Your task to perform on an android device: snooze an email in the gmail app Image 0: 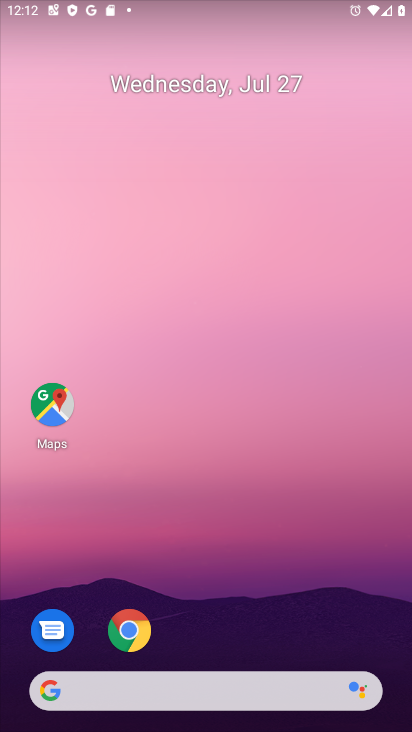
Step 0: drag from (231, 726) to (219, 289)
Your task to perform on an android device: snooze an email in the gmail app Image 1: 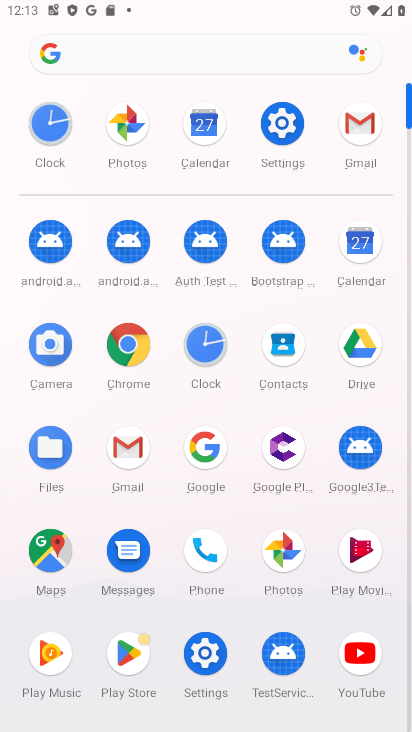
Step 1: click (124, 453)
Your task to perform on an android device: snooze an email in the gmail app Image 2: 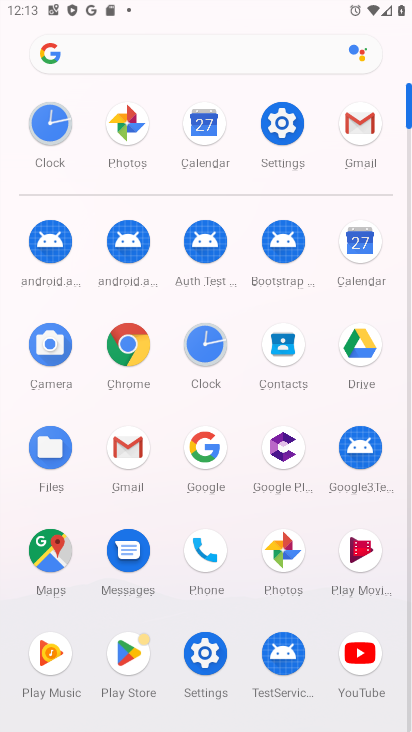
Step 2: click (124, 453)
Your task to perform on an android device: snooze an email in the gmail app Image 3: 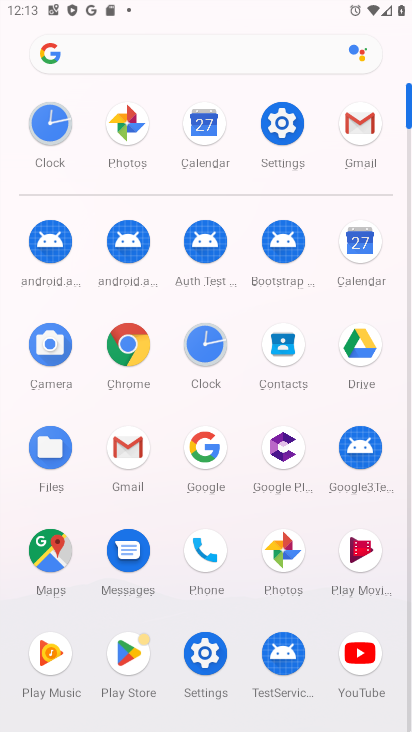
Step 3: click (124, 453)
Your task to perform on an android device: snooze an email in the gmail app Image 4: 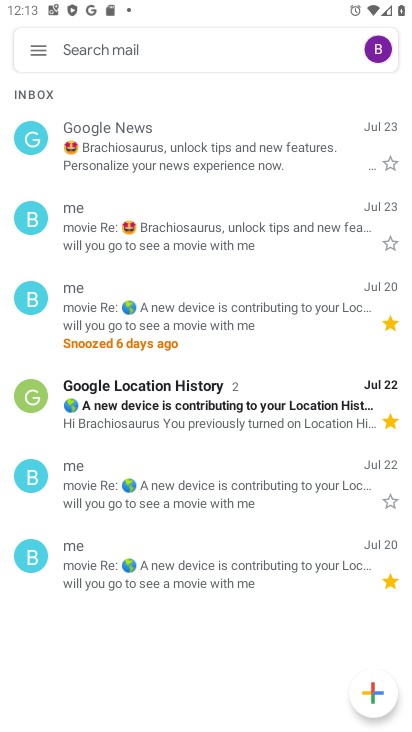
Step 4: click (157, 499)
Your task to perform on an android device: snooze an email in the gmail app Image 5: 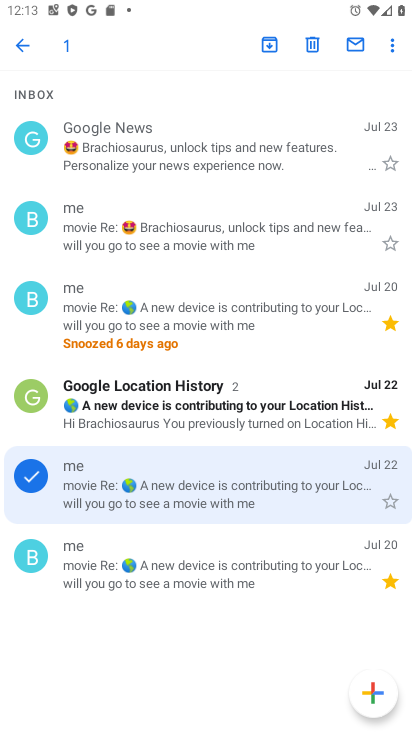
Step 5: click (389, 47)
Your task to perform on an android device: snooze an email in the gmail app Image 6: 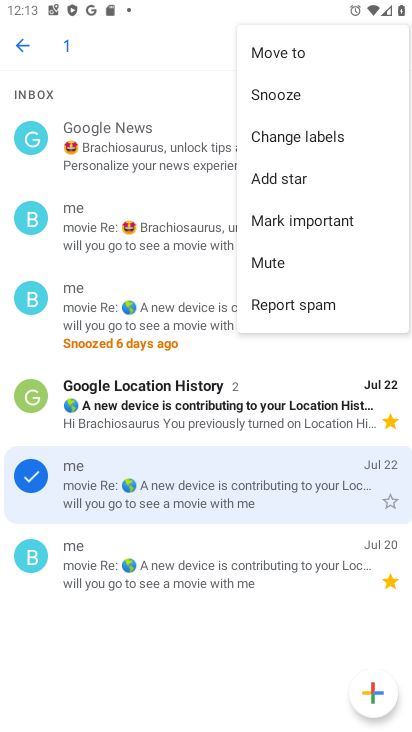
Step 6: click (332, 92)
Your task to perform on an android device: snooze an email in the gmail app Image 7: 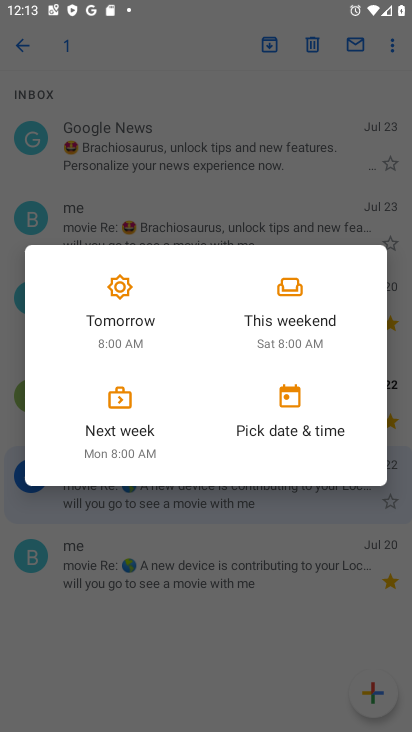
Step 7: click (119, 325)
Your task to perform on an android device: snooze an email in the gmail app Image 8: 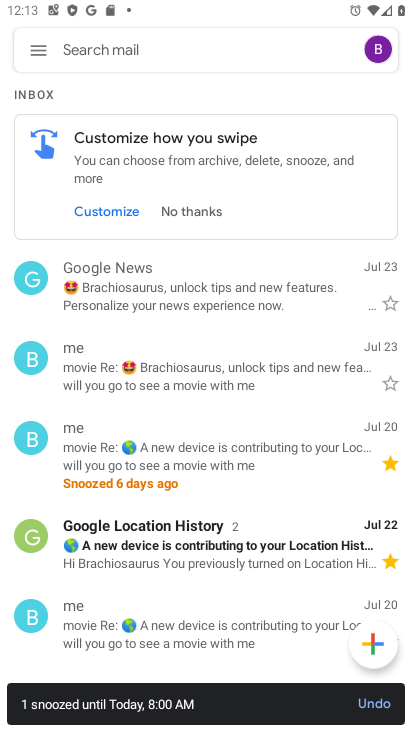
Step 8: task complete